Your task to perform on an android device: Open sound settings Image 0: 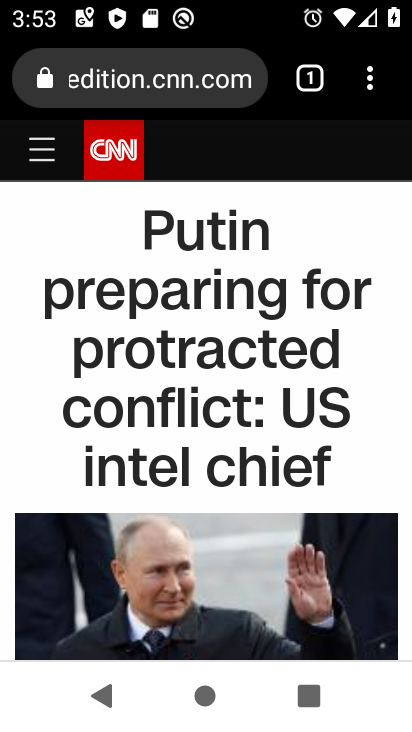
Step 0: press home button
Your task to perform on an android device: Open sound settings Image 1: 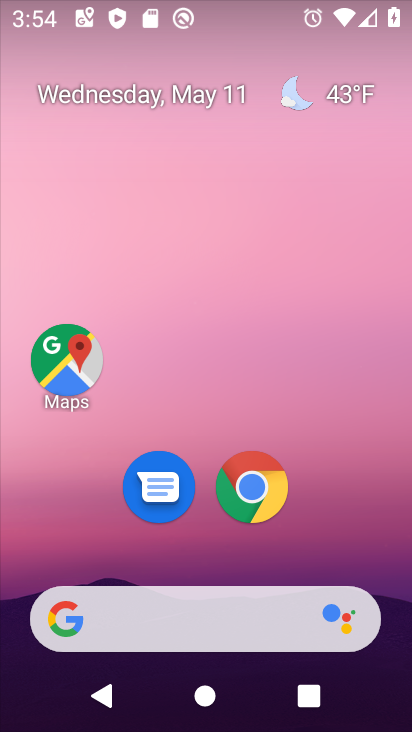
Step 1: drag from (326, 501) to (282, 79)
Your task to perform on an android device: Open sound settings Image 2: 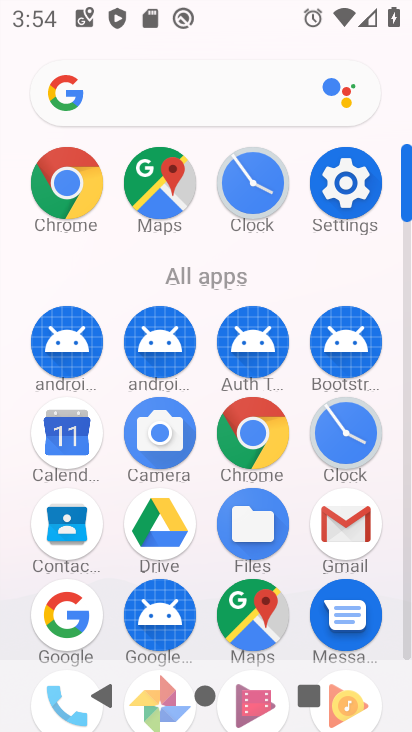
Step 2: click (328, 198)
Your task to perform on an android device: Open sound settings Image 3: 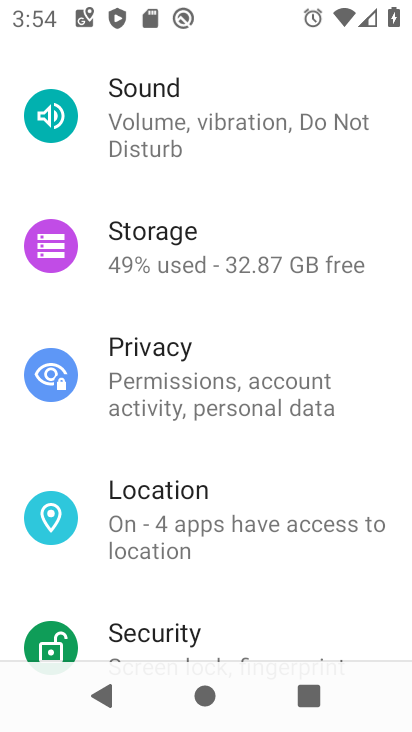
Step 3: drag from (163, 621) to (246, 731)
Your task to perform on an android device: Open sound settings Image 4: 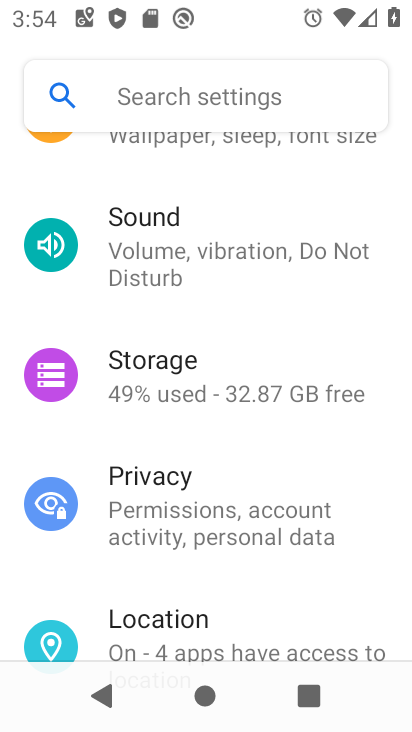
Step 4: click (188, 540)
Your task to perform on an android device: Open sound settings Image 5: 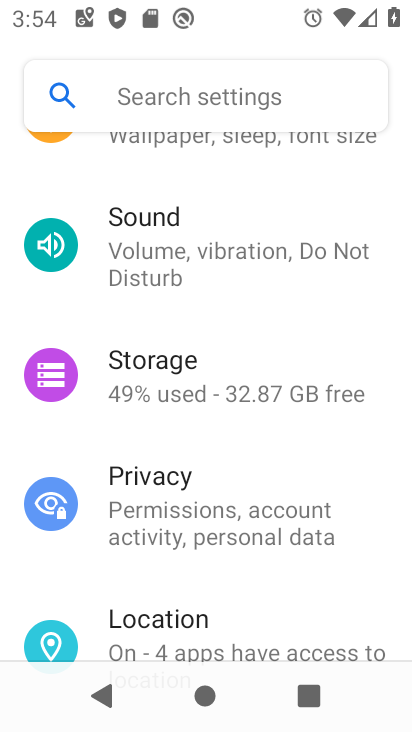
Step 5: click (160, 271)
Your task to perform on an android device: Open sound settings Image 6: 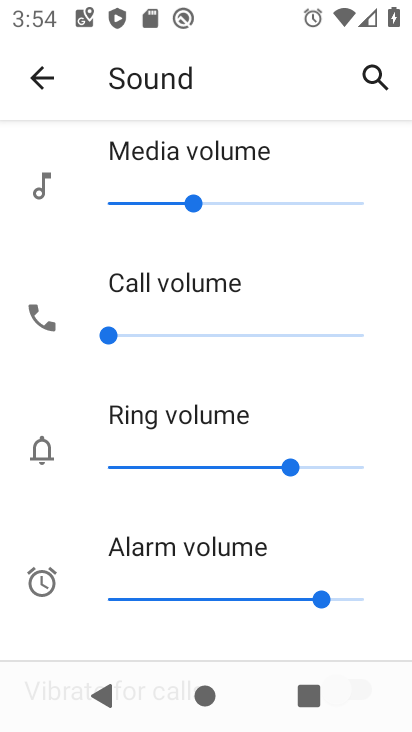
Step 6: task complete